Your task to perform on an android device: snooze an email in the gmail app Image 0: 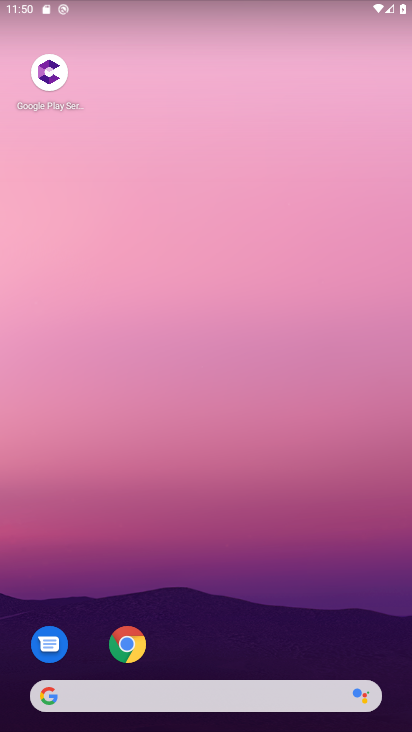
Step 0: drag from (237, 549) to (284, 138)
Your task to perform on an android device: snooze an email in the gmail app Image 1: 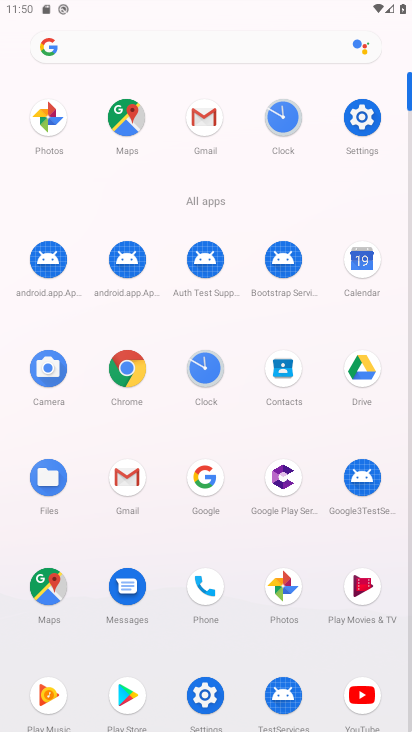
Step 1: click (214, 114)
Your task to perform on an android device: snooze an email in the gmail app Image 2: 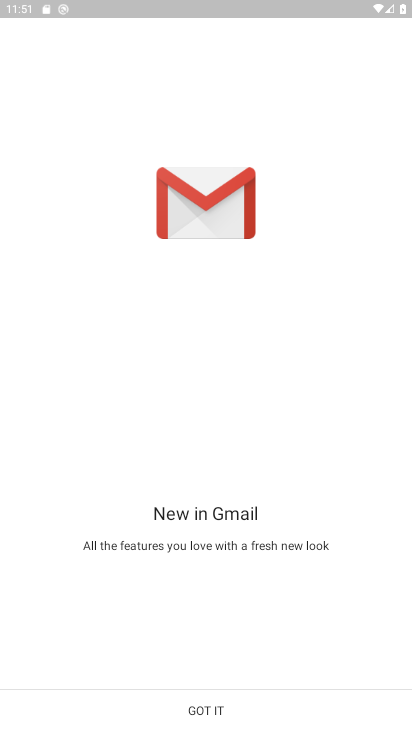
Step 2: click (209, 706)
Your task to perform on an android device: snooze an email in the gmail app Image 3: 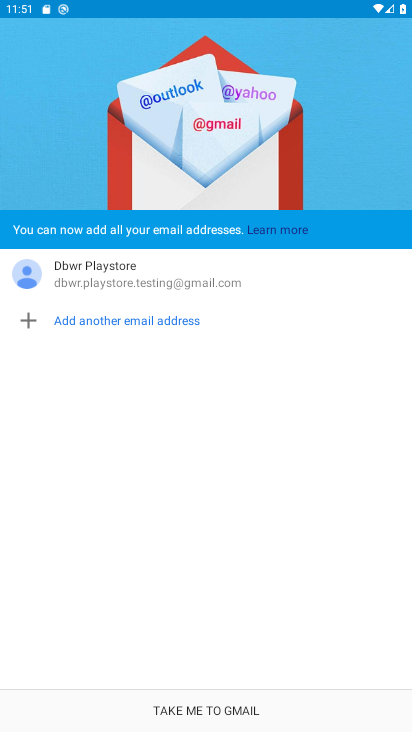
Step 3: click (171, 714)
Your task to perform on an android device: snooze an email in the gmail app Image 4: 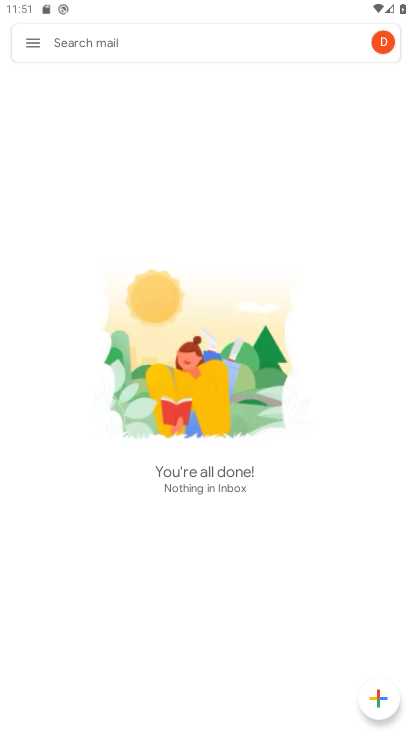
Step 4: click (25, 43)
Your task to perform on an android device: snooze an email in the gmail app Image 5: 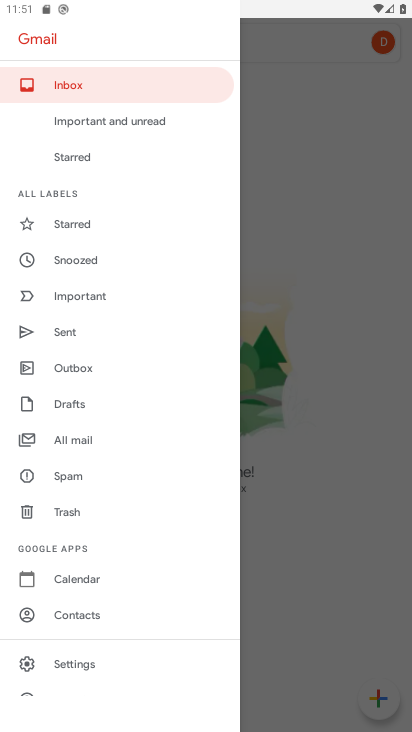
Step 5: click (112, 438)
Your task to perform on an android device: snooze an email in the gmail app Image 6: 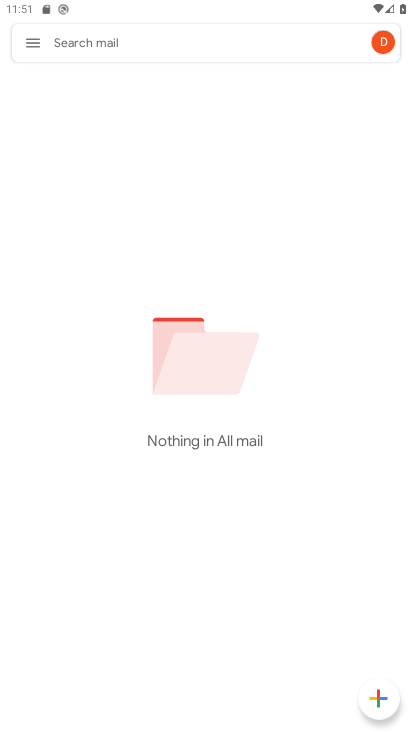
Step 6: task complete